Your task to perform on an android device: open chrome and create a bookmark for the current page Image 0: 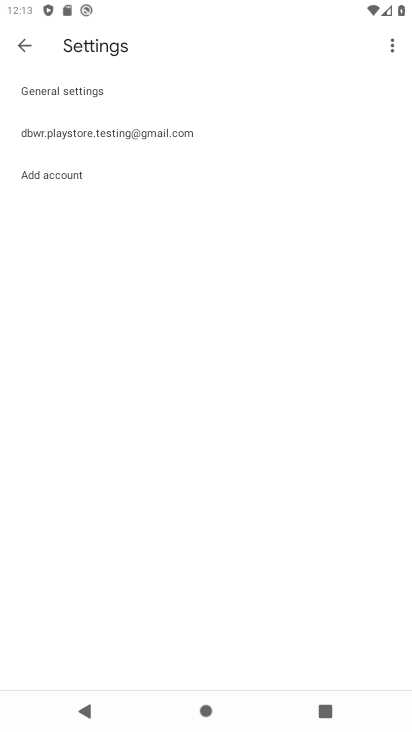
Step 0: press home button
Your task to perform on an android device: open chrome and create a bookmark for the current page Image 1: 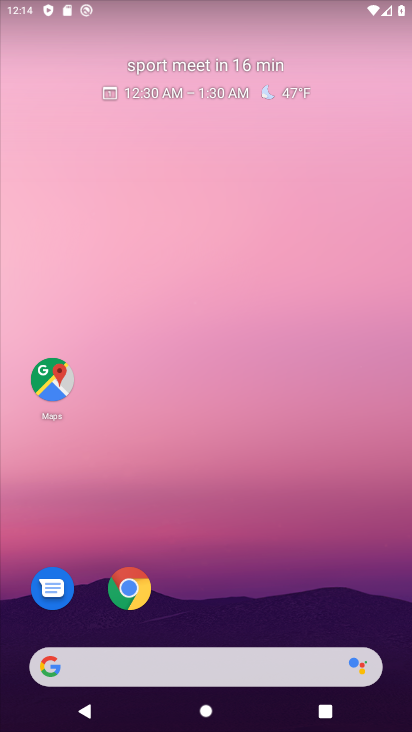
Step 1: click (136, 581)
Your task to perform on an android device: open chrome and create a bookmark for the current page Image 2: 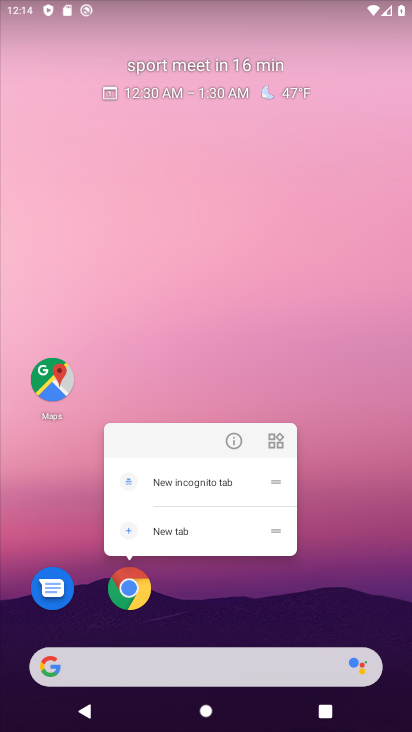
Step 2: click (136, 581)
Your task to perform on an android device: open chrome and create a bookmark for the current page Image 3: 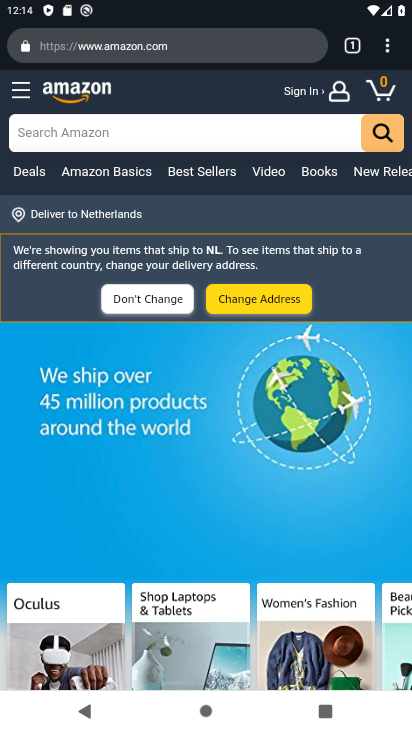
Step 3: click (385, 47)
Your task to perform on an android device: open chrome and create a bookmark for the current page Image 4: 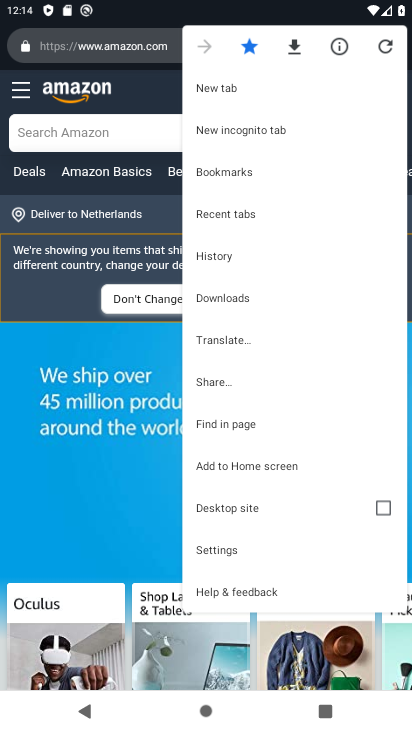
Step 4: task complete